Your task to perform on an android device: change keyboard looks Image 0: 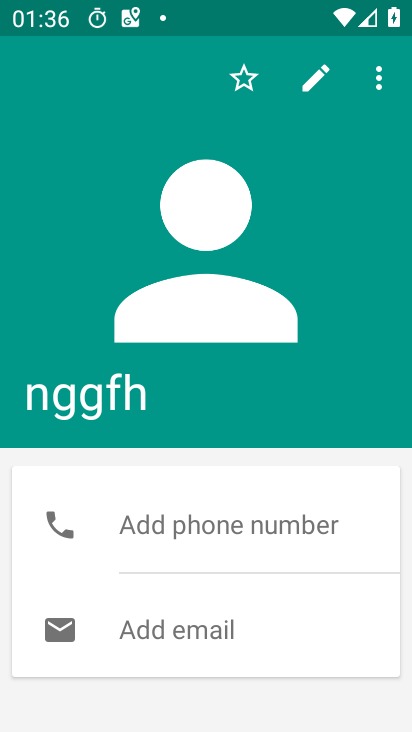
Step 0: press home button
Your task to perform on an android device: change keyboard looks Image 1: 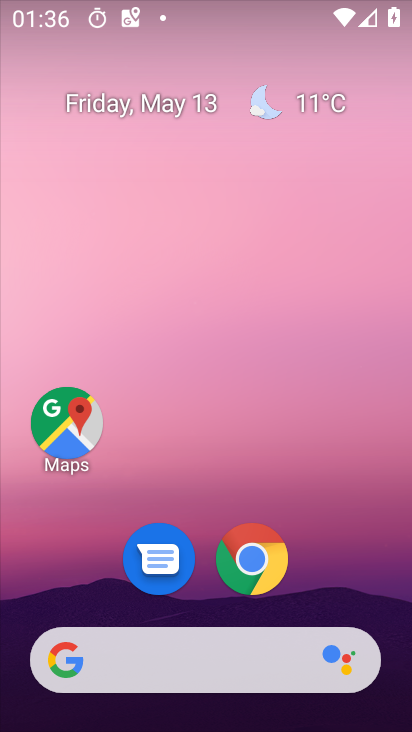
Step 1: drag from (347, 564) to (354, 120)
Your task to perform on an android device: change keyboard looks Image 2: 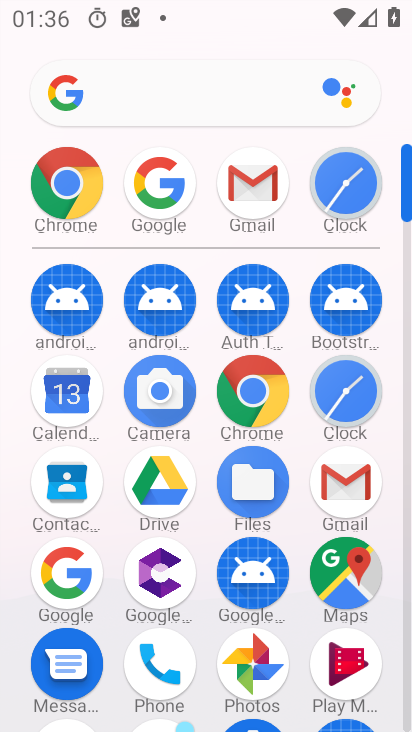
Step 2: drag from (208, 622) to (230, 273)
Your task to perform on an android device: change keyboard looks Image 3: 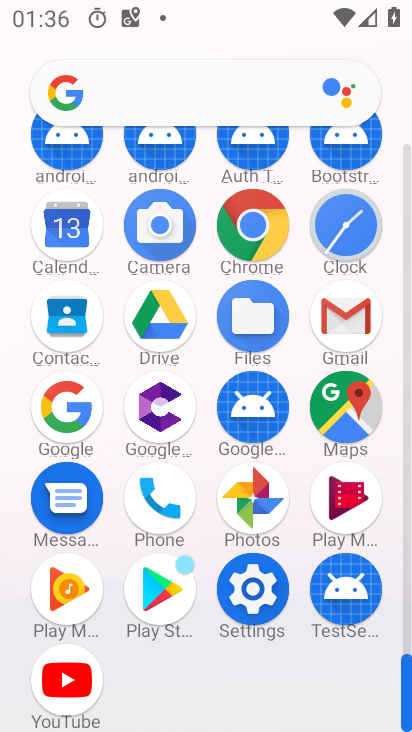
Step 3: click (246, 593)
Your task to perform on an android device: change keyboard looks Image 4: 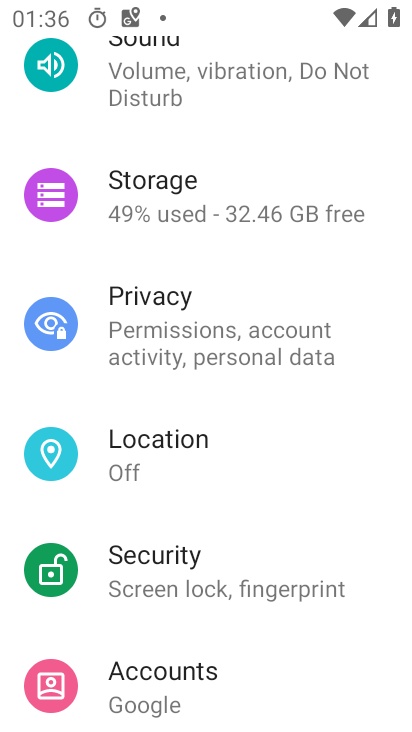
Step 4: drag from (291, 703) to (328, 133)
Your task to perform on an android device: change keyboard looks Image 5: 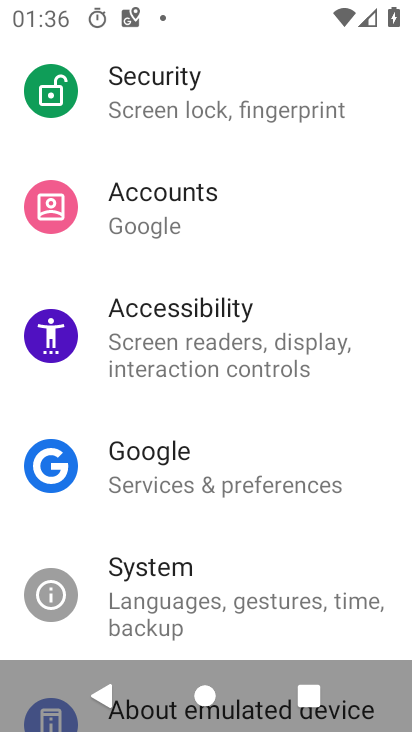
Step 5: click (181, 589)
Your task to perform on an android device: change keyboard looks Image 6: 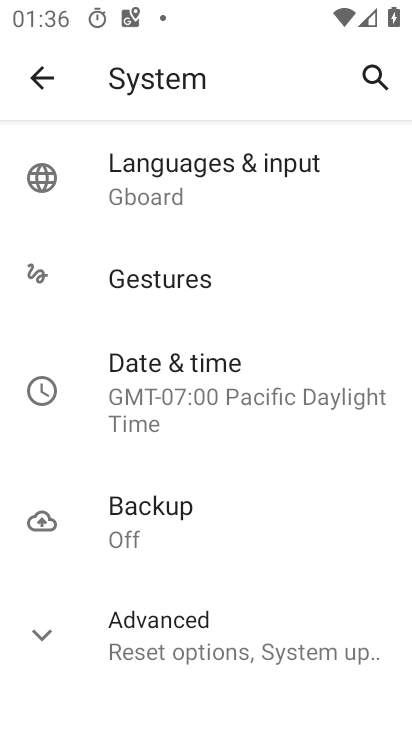
Step 6: click (195, 198)
Your task to perform on an android device: change keyboard looks Image 7: 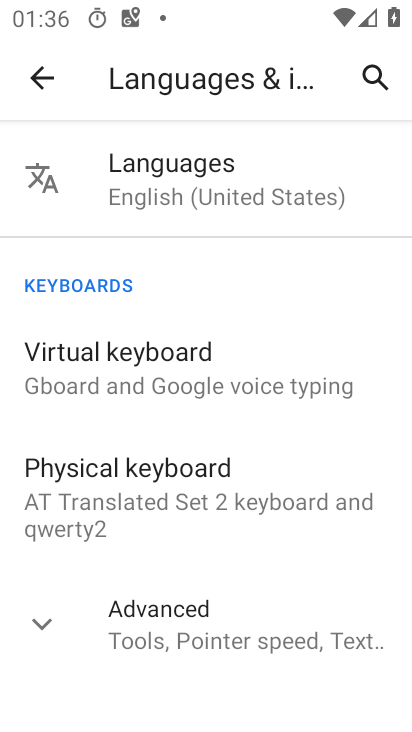
Step 7: click (184, 363)
Your task to perform on an android device: change keyboard looks Image 8: 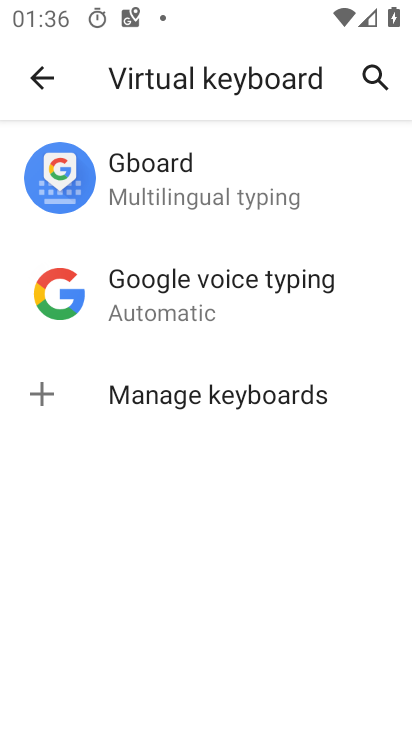
Step 8: click (166, 183)
Your task to perform on an android device: change keyboard looks Image 9: 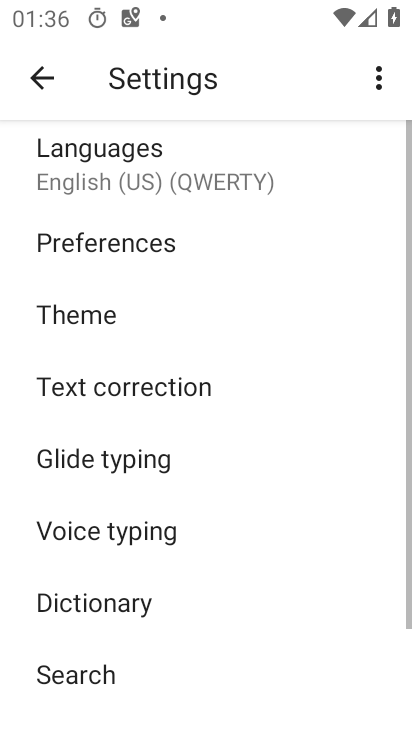
Step 9: click (108, 327)
Your task to perform on an android device: change keyboard looks Image 10: 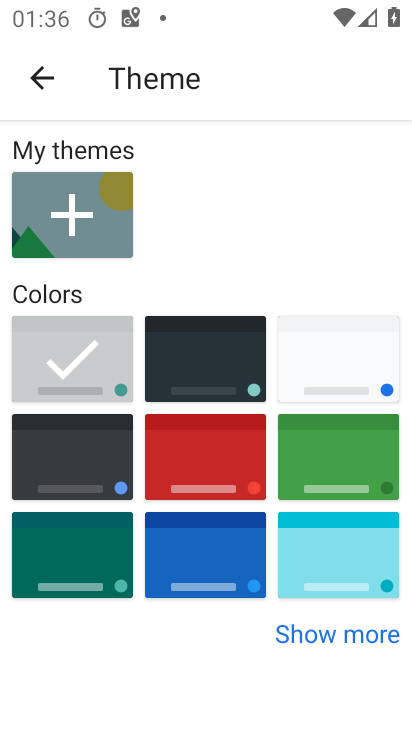
Step 10: click (208, 362)
Your task to perform on an android device: change keyboard looks Image 11: 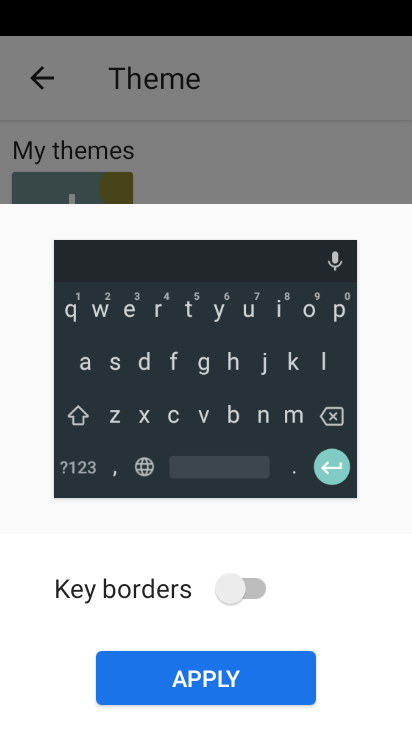
Step 11: click (206, 690)
Your task to perform on an android device: change keyboard looks Image 12: 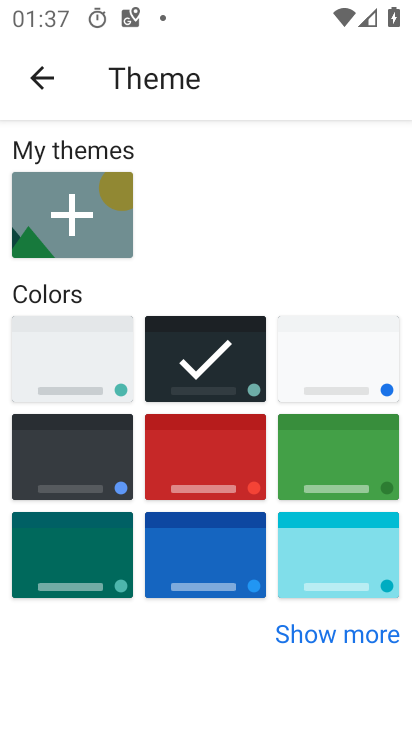
Step 12: task complete